Your task to perform on an android device: turn vacation reply on in the gmail app Image 0: 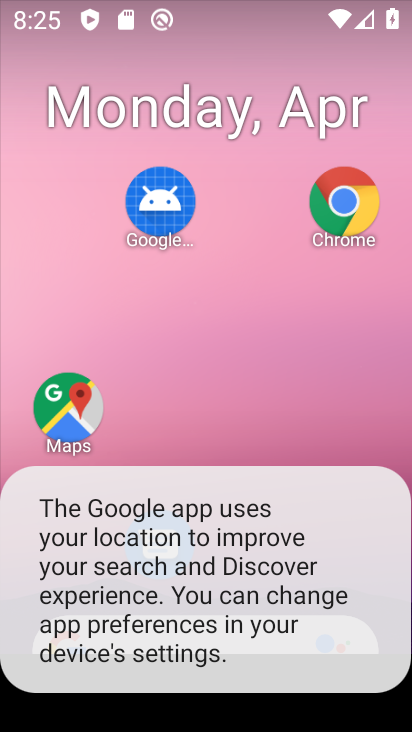
Step 0: drag from (209, 603) to (362, 21)
Your task to perform on an android device: turn vacation reply on in the gmail app Image 1: 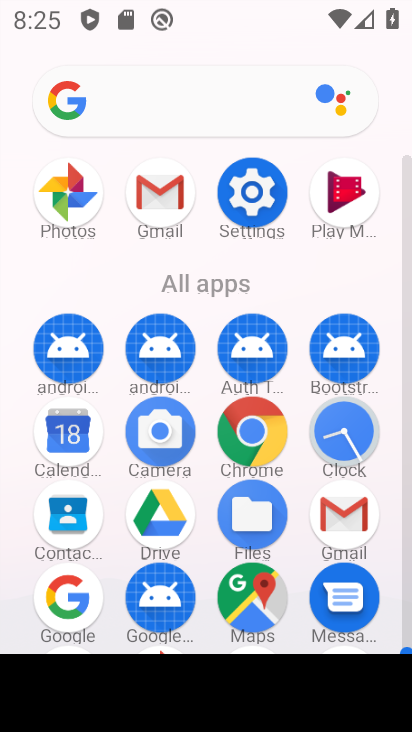
Step 1: click (336, 509)
Your task to perform on an android device: turn vacation reply on in the gmail app Image 2: 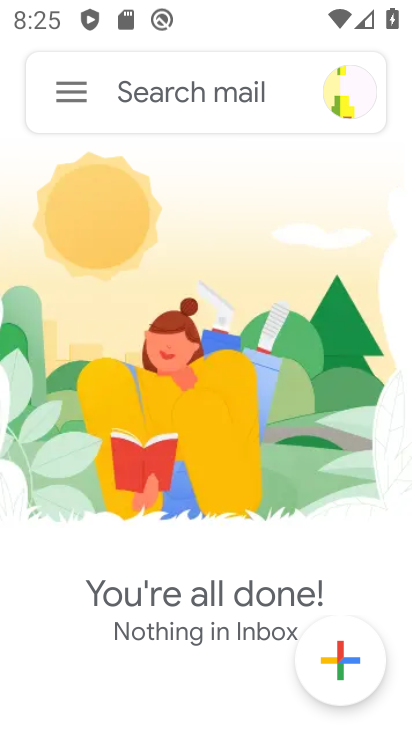
Step 2: click (71, 80)
Your task to perform on an android device: turn vacation reply on in the gmail app Image 3: 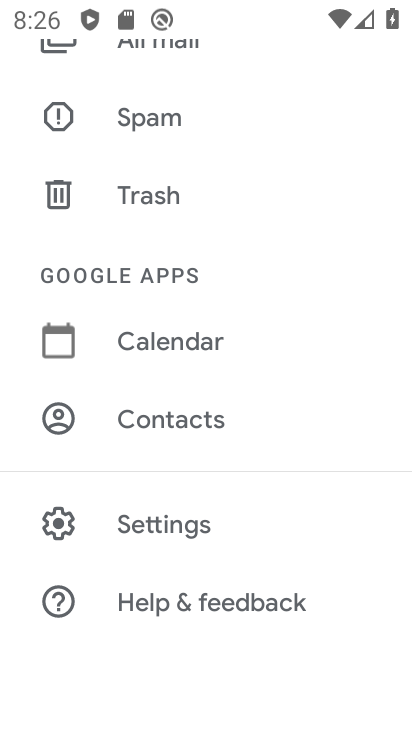
Step 3: click (143, 527)
Your task to perform on an android device: turn vacation reply on in the gmail app Image 4: 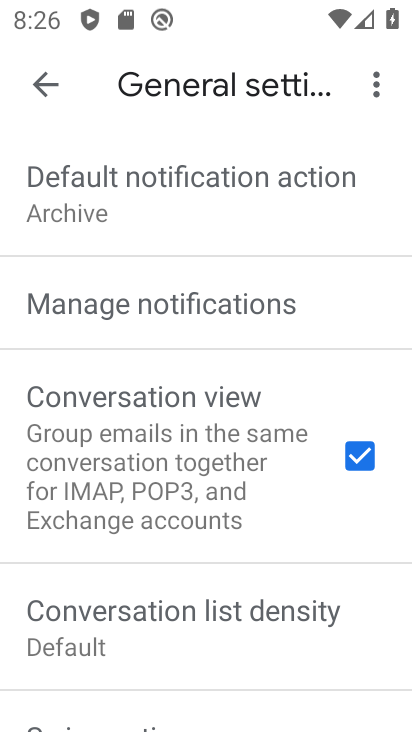
Step 4: click (39, 89)
Your task to perform on an android device: turn vacation reply on in the gmail app Image 5: 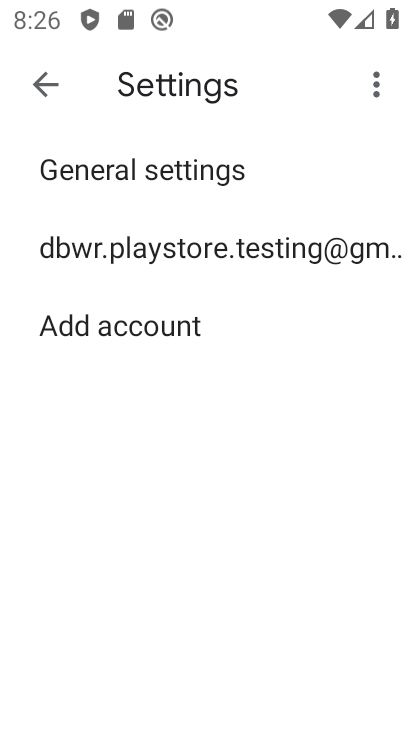
Step 5: click (123, 243)
Your task to perform on an android device: turn vacation reply on in the gmail app Image 6: 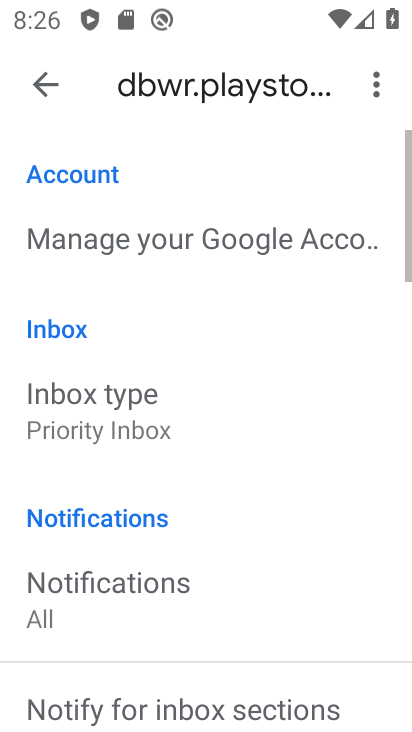
Step 6: drag from (216, 583) to (187, 99)
Your task to perform on an android device: turn vacation reply on in the gmail app Image 7: 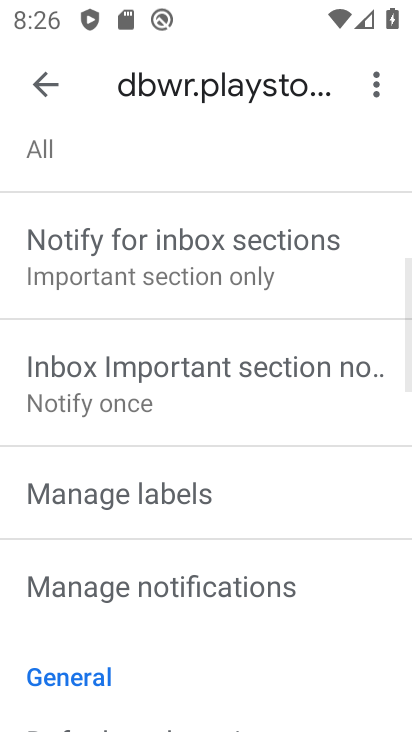
Step 7: drag from (192, 598) to (174, 51)
Your task to perform on an android device: turn vacation reply on in the gmail app Image 8: 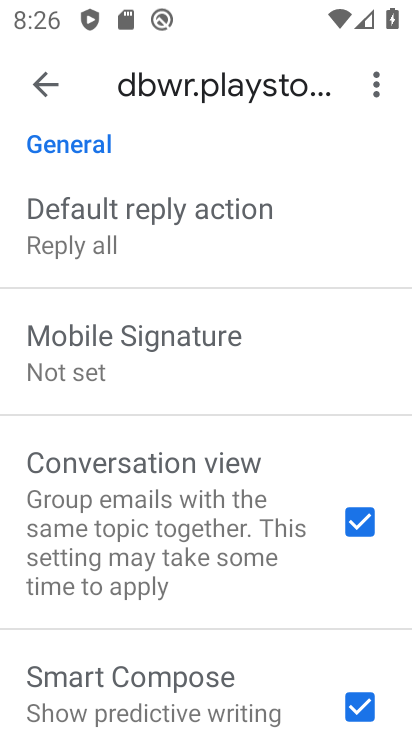
Step 8: drag from (166, 631) to (156, 188)
Your task to perform on an android device: turn vacation reply on in the gmail app Image 9: 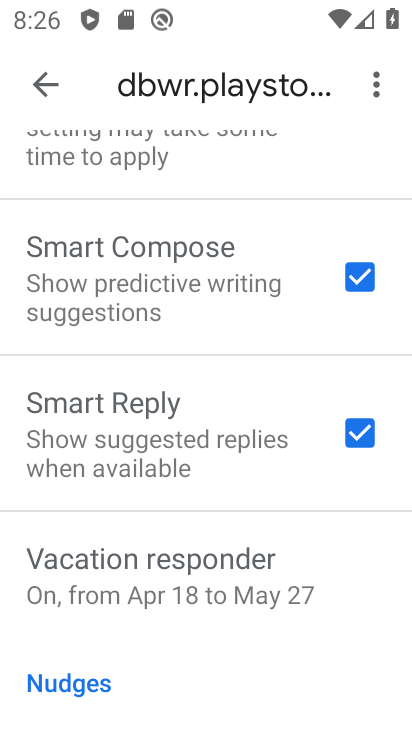
Step 9: click (186, 533)
Your task to perform on an android device: turn vacation reply on in the gmail app Image 10: 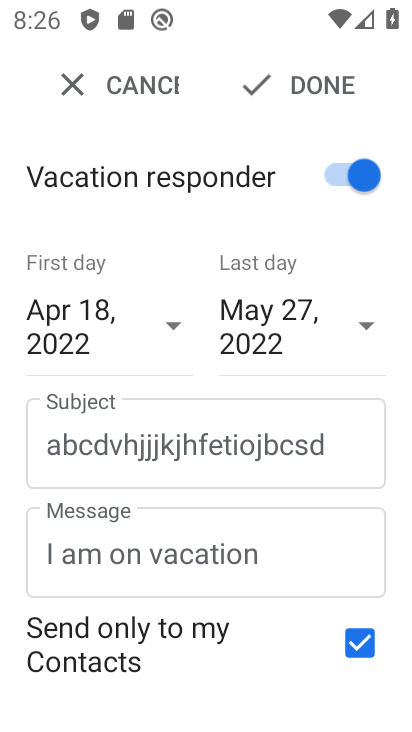
Step 10: click (310, 106)
Your task to perform on an android device: turn vacation reply on in the gmail app Image 11: 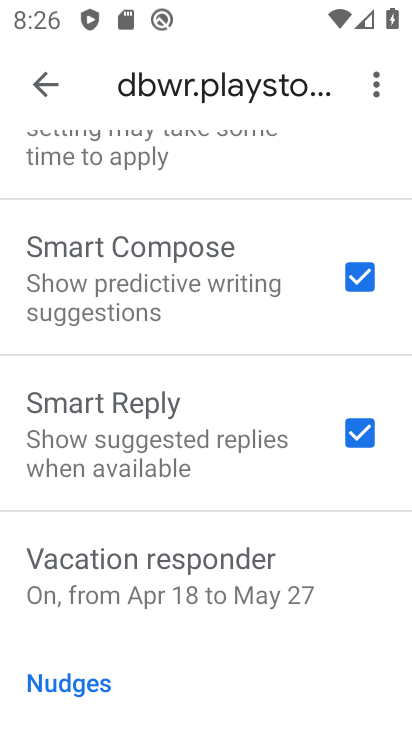
Step 11: task complete